Your task to perform on an android device: empty trash in google photos Image 0: 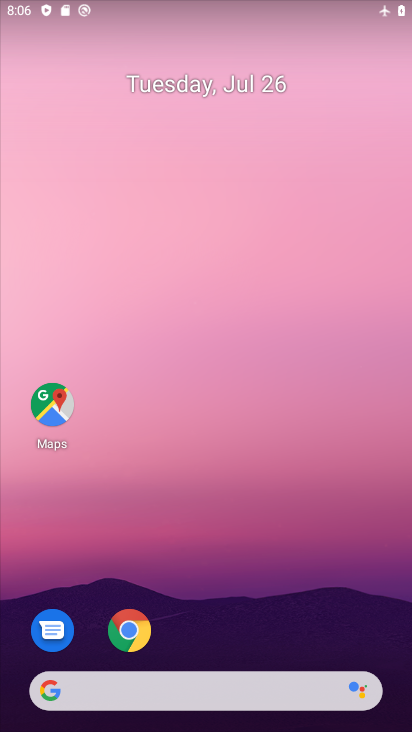
Step 0: drag from (263, 629) to (136, 89)
Your task to perform on an android device: empty trash in google photos Image 1: 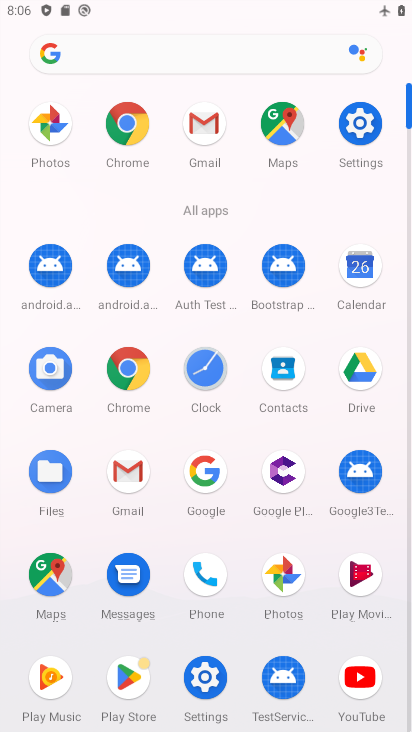
Step 1: click (278, 570)
Your task to perform on an android device: empty trash in google photos Image 2: 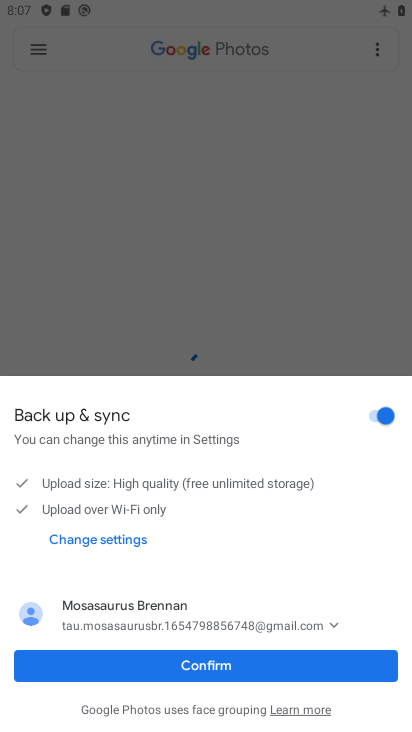
Step 2: click (246, 655)
Your task to perform on an android device: empty trash in google photos Image 3: 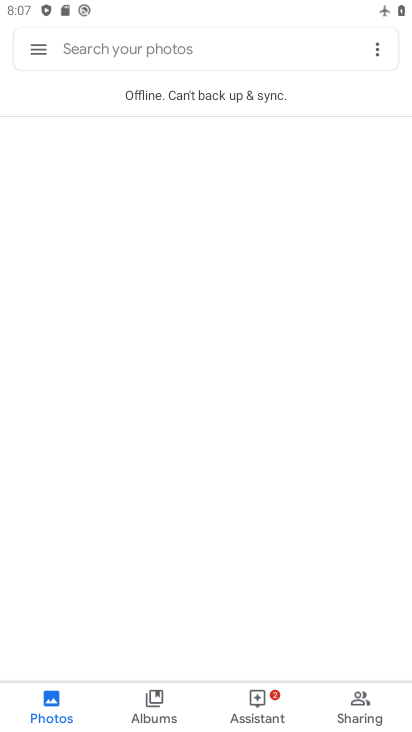
Step 3: click (41, 44)
Your task to perform on an android device: empty trash in google photos Image 4: 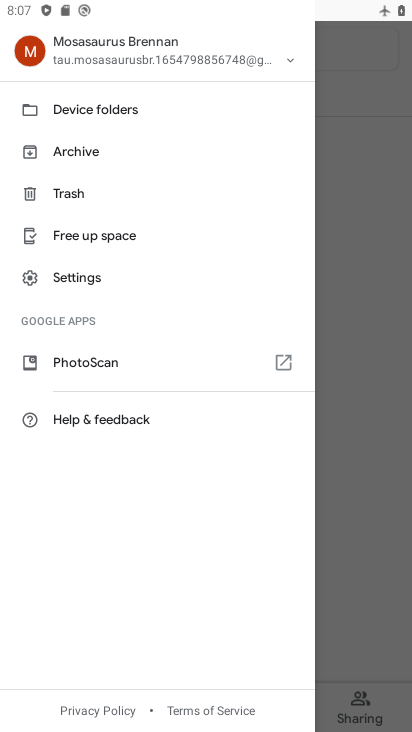
Step 4: click (78, 201)
Your task to perform on an android device: empty trash in google photos Image 5: 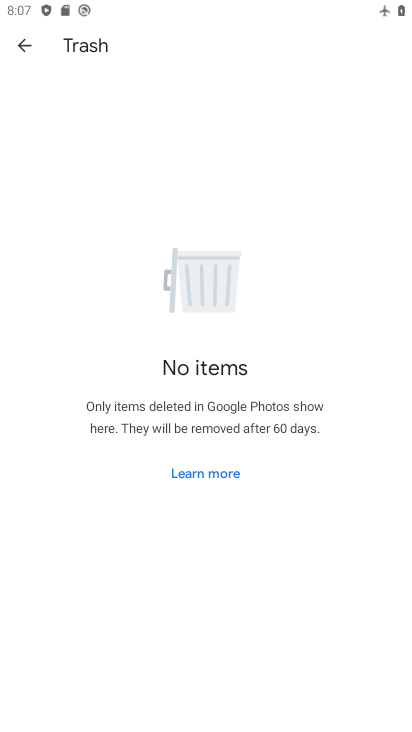
Step 5: task complete